Your task to perform on an android device: Open calendar and show me the first week of next month Image 0: 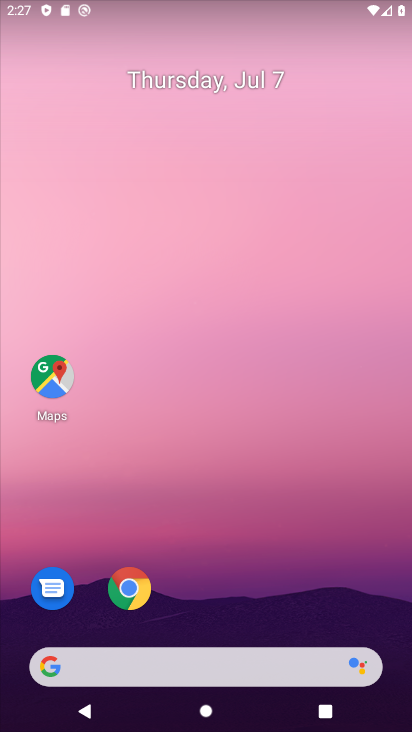
Step 0: drag from (243, 661) to (298, 83)
Your task to perform on an android device: Open calendar and show me the first week of next month Image 1: 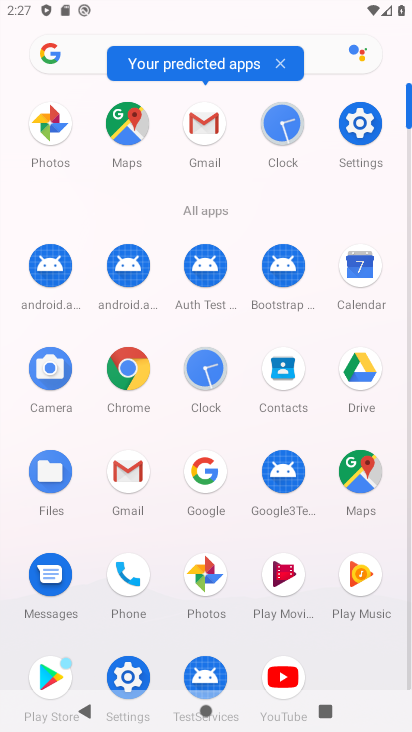
Step 1: click (358, 277)
Your task to perform on an android device: Open calendar and show me the first week of next month Image 2: 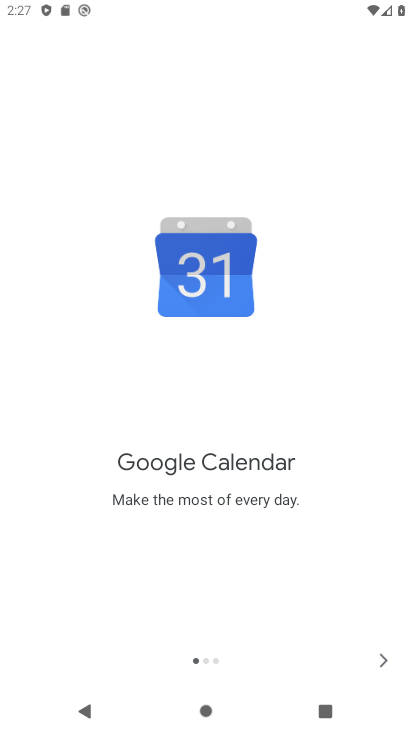
Step 2: click (378, 661)
Your task to perform on an android device: Open calendar and show me the first week of next month Image 3: 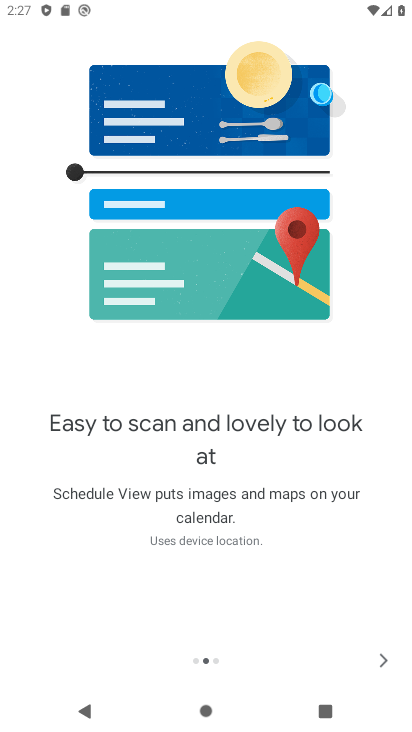
Step 3: click (378, 661)
Your task to perform on an android device: Open calendar and show me the first week of next month Image 4: 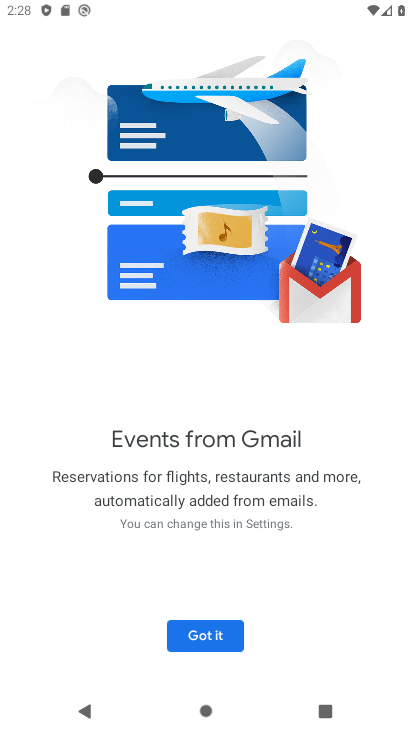
Step 4: click (202, 635)
Your task to perform on an android device: Open calendar and show me the first week of next month Image 5: 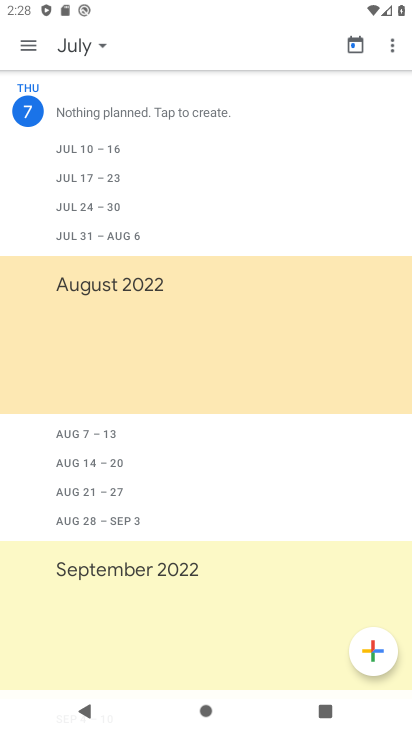
Step 5: click (74, 45)
Your task to perform on an android device: Open calendar and show me the first week of next month Image 6: 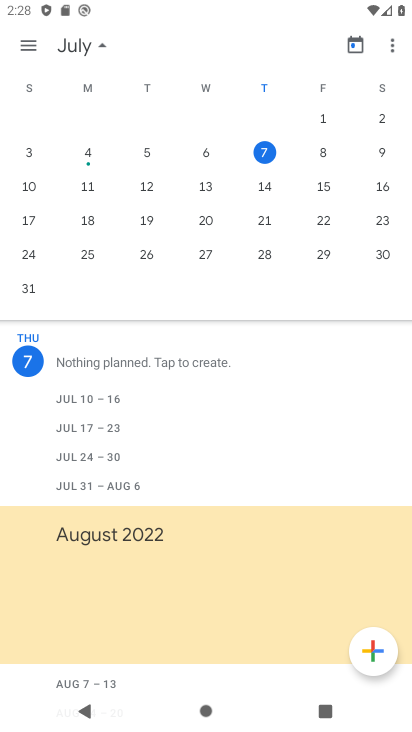
Step 6: click (95, 42)
Your task to perform on an android device: Open calendar and show me the first week of next month Image 7: 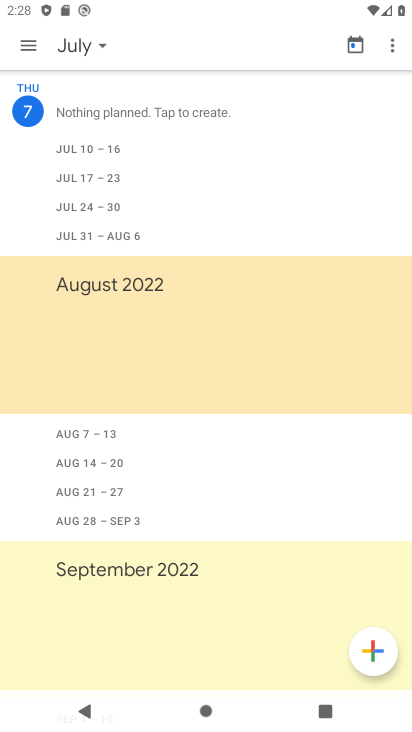
Step 7: click (99, 52)
Your task to perform on an android device: Open calendar and show me the first week of next month Image 8: 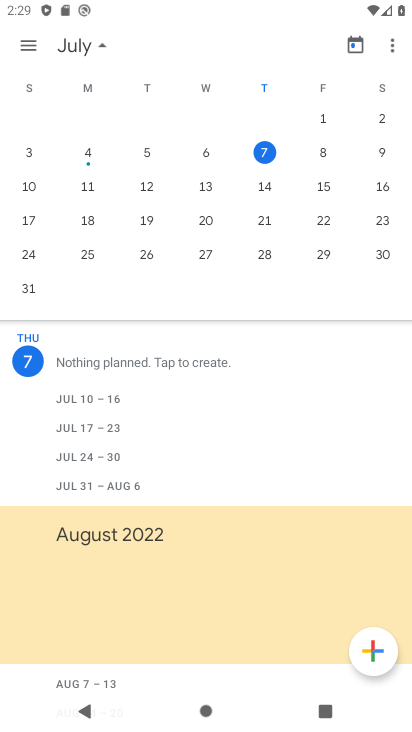
Step 8: drag from (320, 171) to (3, 140)
Your task to perform on an android device: Open calendar and show me the first week of next month Image 9: 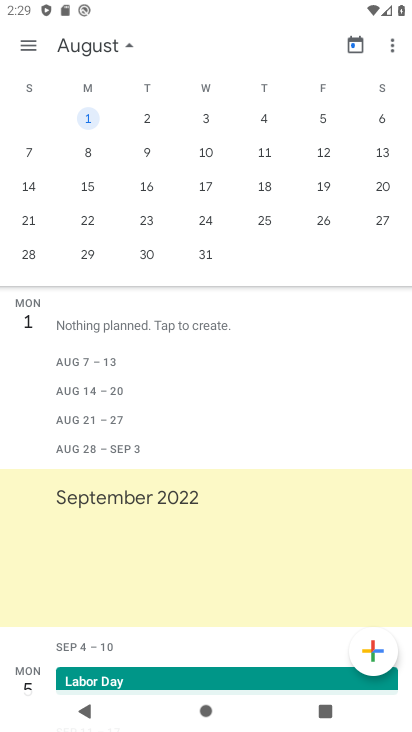
Step 9: click (90, 115)
Your task to perform on an android device: Open calendar and show me the first week of next month Image 10: 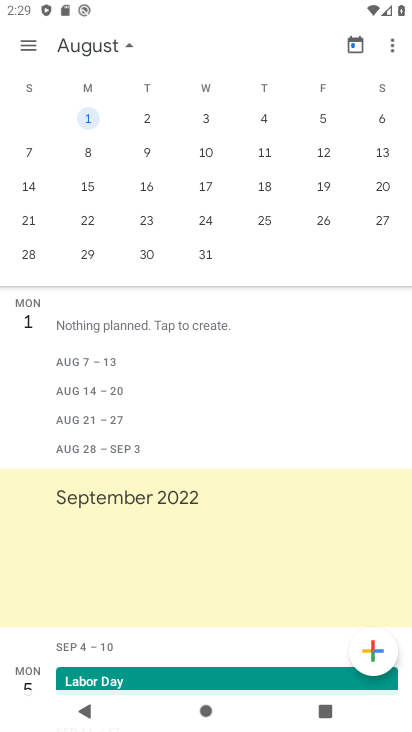
Step 10: task complete